Your task to perform on an android device: change the upload size in google photos Image 0: 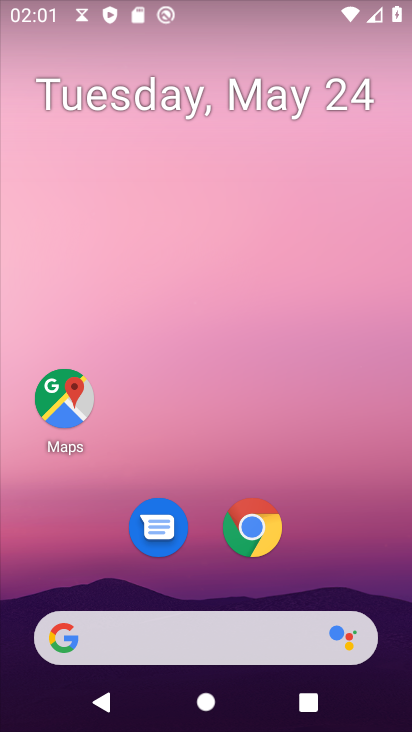
Step 0: drag from (194, 607) to (284, 180)
Your task to perform on an android device: change the upload size in google photos Image 1: 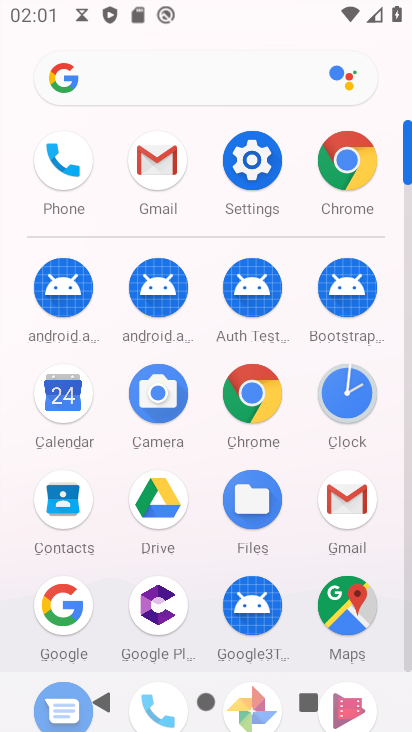
Step 1: drag from (208, 656) to (250, 294)
Your task to perform on an android device: change the upload size in google photos Image 2: 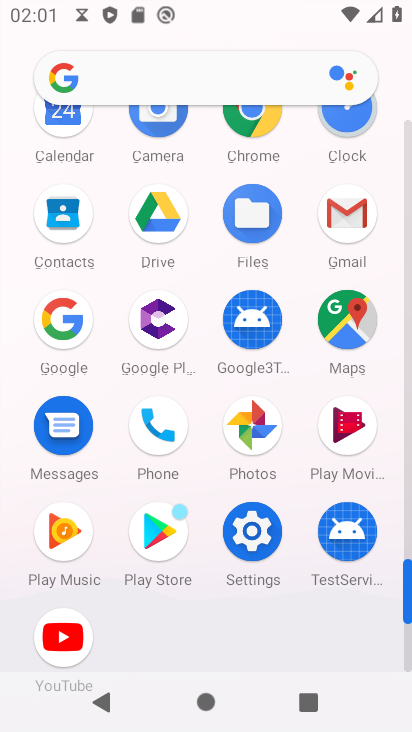
Step 2: click (257, 431)
Your task to perform on an android device: change the upload size in google photos Image 3: 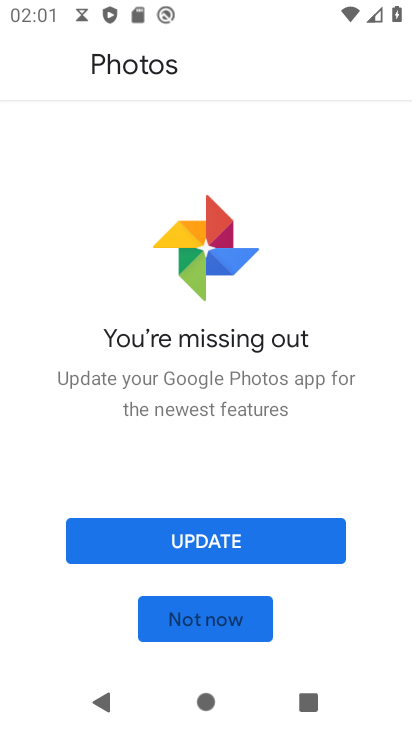
Step 3: click (224, 547)
Your task to perform on an android device: change the upload size in google photos Image 4: 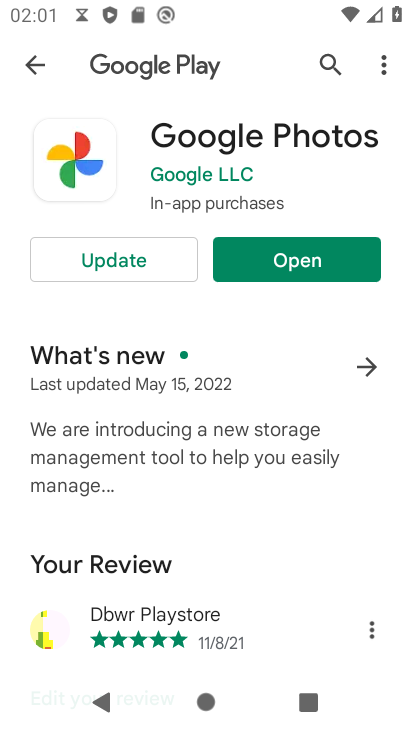
Step 4: click (138, 268)
Your task to perform on an android device: change the upload size in google photos Image 5: 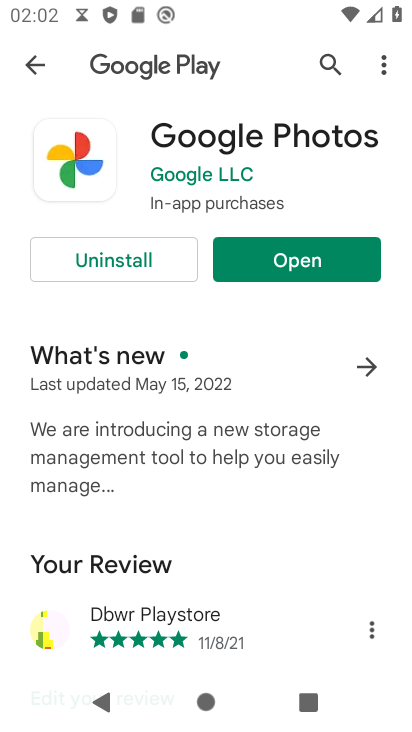
Step 5: click (283, 266)
Your task to perform on an android device: change the upload size in google photos Image 6: 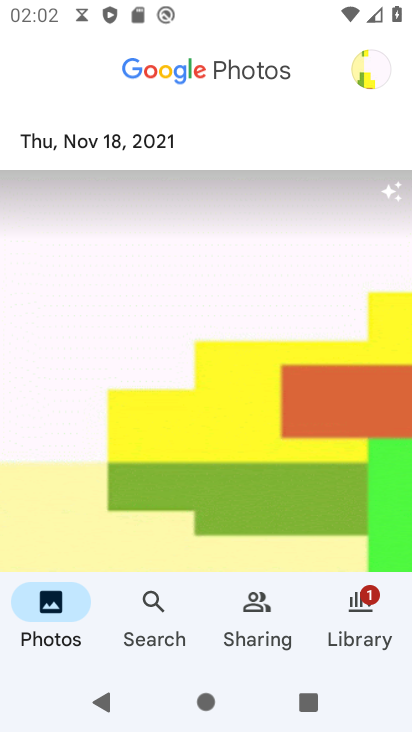
Step 6: click (373, 72)
Your task to perform on an android device: change the upload size in google photos Image 7: 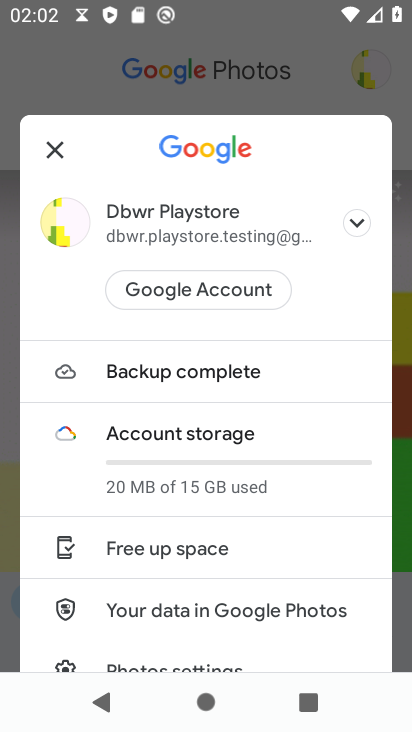
Step 7: drag from (202, 577) to (287, 231)
Your task to perform on an android device: change the upload size in google photos Image 8: 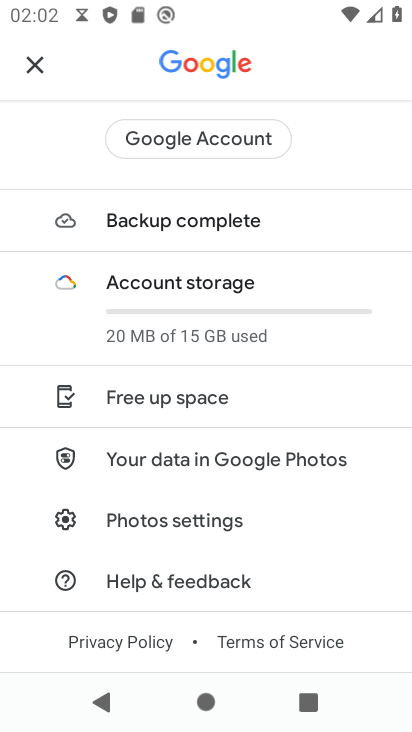
Step 8: click (209, 530)
Your task to perform on an android device: change the upload size in google photos Image 9: 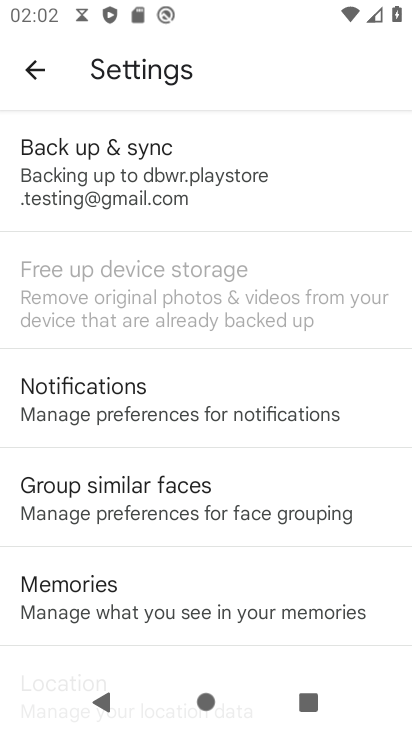
Step 9: click (182, 193)
Your task to perform on an android device: change the upload size in google photos Image 10: 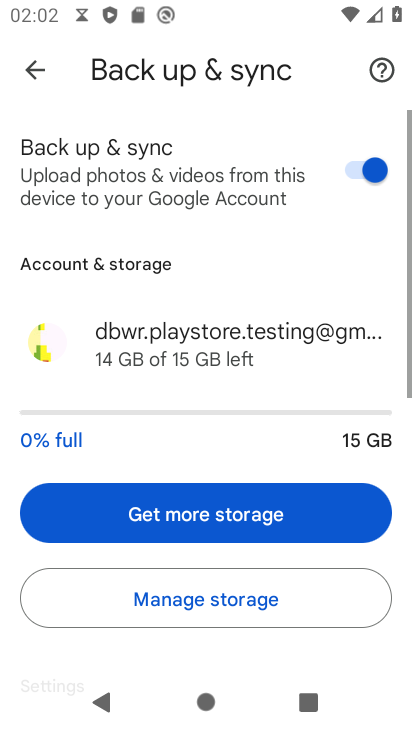
Step 10: drag from (217, 619) to (309, 169)
Your task to perform on an android device: change the upload size in google photos Image 11: 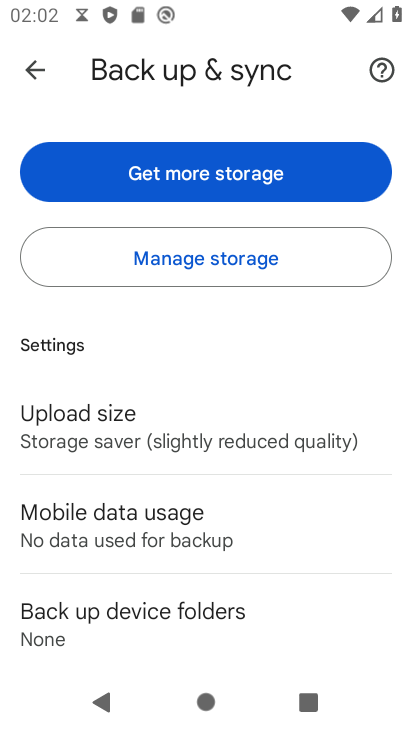
Step 11: click (122, 425)
Your task to perform on an android device: change the upload size in google photos Image 12: 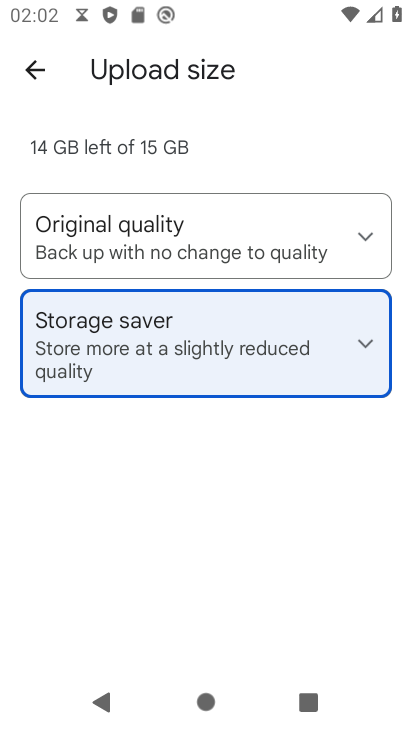
Step 12: click (360, 232)
Your task to perform on an android device: change the upload size in google photos Image 13: 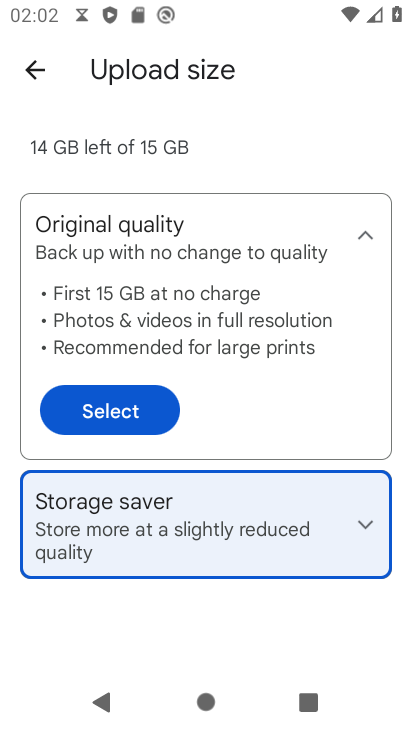
Step 13: click (110, 411)
Your task to perform on an android device: change the upload size in google photos Image 14: 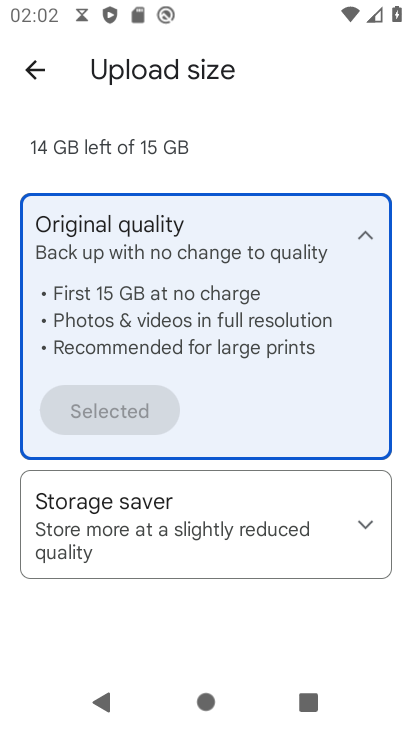
Step 14: task complete